Your task to perform on an android device: Add razer blade to the cart on target.com, then select checkout. Image 0: 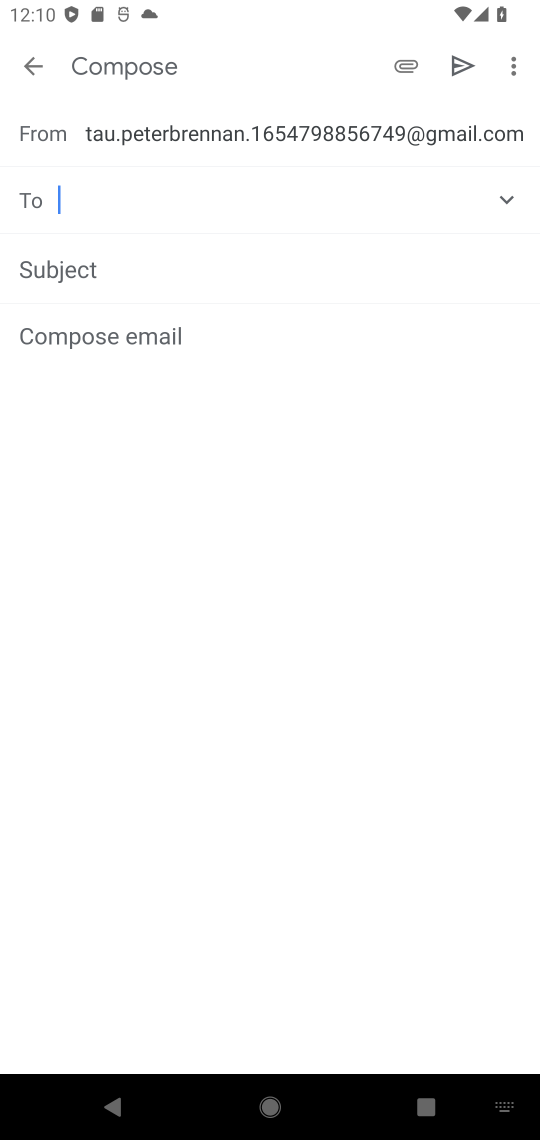
Step 0: press home button
Your task to perform on an android device: Add razer blade to the cart on target.com, then select checkout. Image 1: 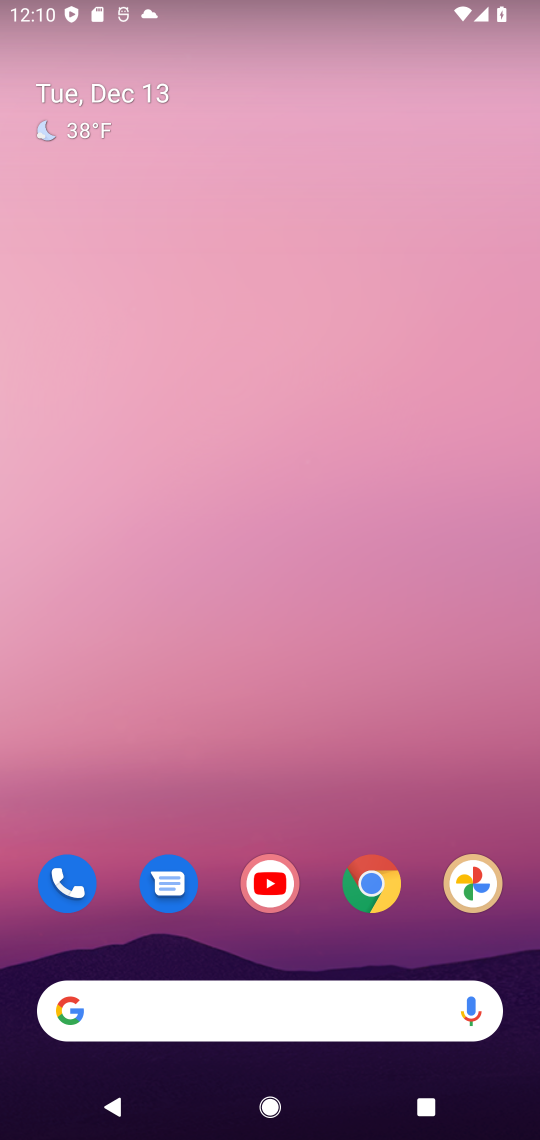
Step 1: click (168, 1019)
Your task to perform on an android device: Add razer blade to the cart on target.com, then select checkout. Image 2: 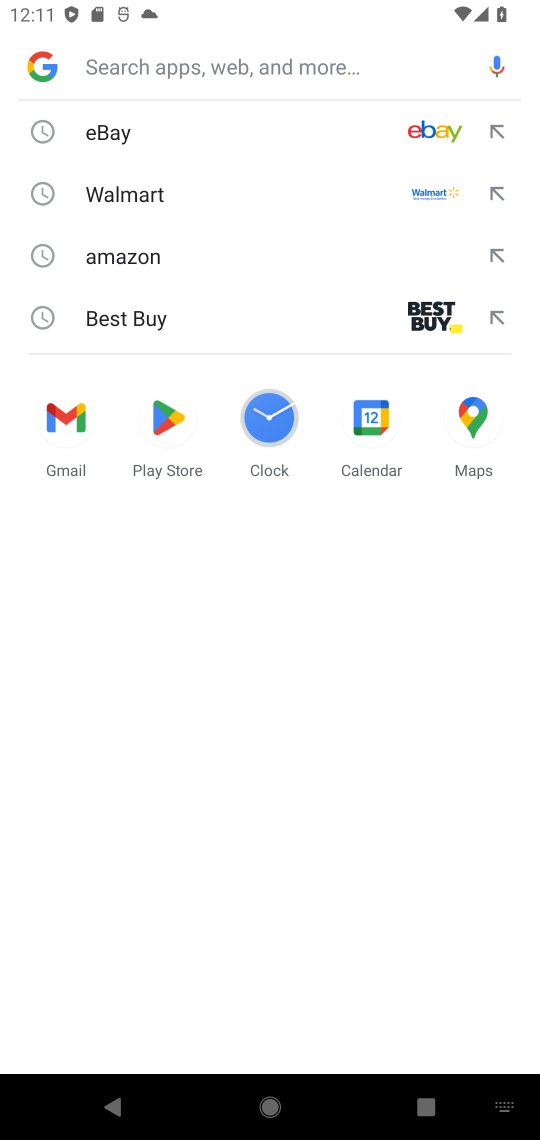
Step 2: type " target.com"
Your task to perform on an android device: Add razer blade to the cart on target.com, then select checkout. Image 3: 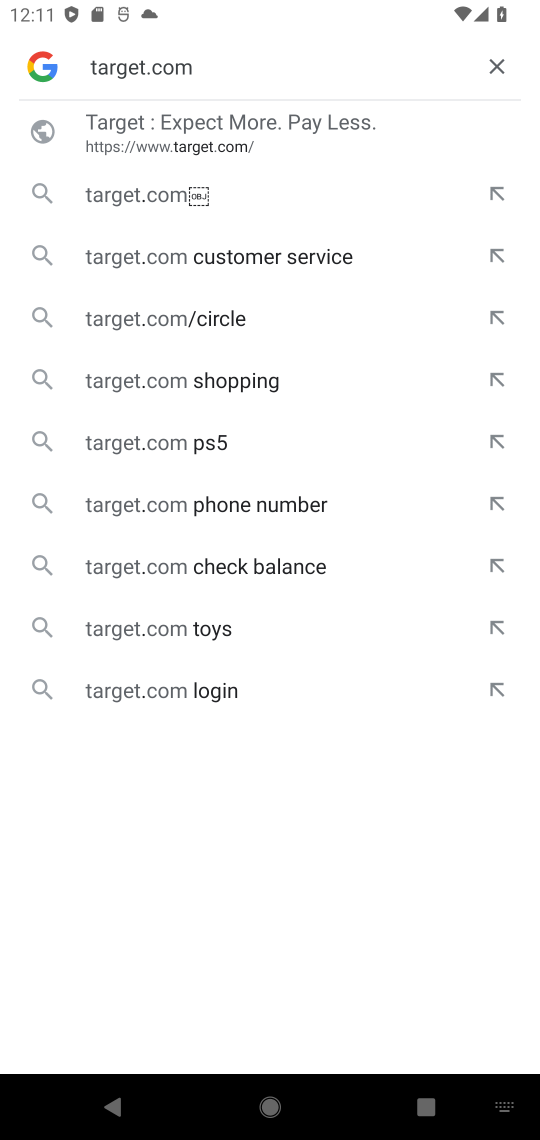
Step 3: click (118, 151)
Your task to perform on an android device: Add razer blade to the cart on target.com, then select checkout. Image 4: 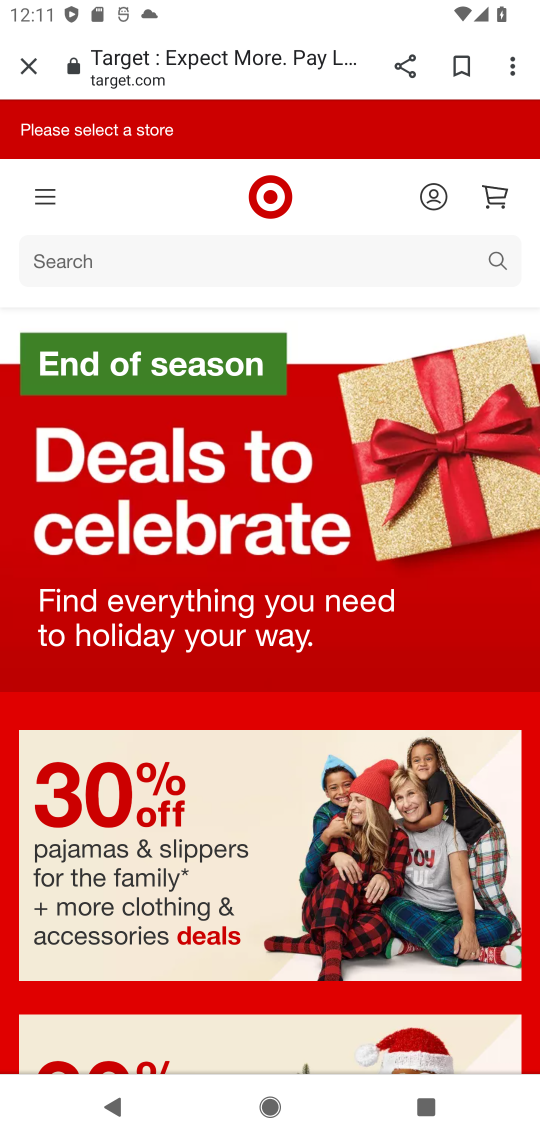
Step 4: click (263, 265)
Your task to perform on an android device: Add razer blade to the cart on target.com, then select checkout. Image 5: 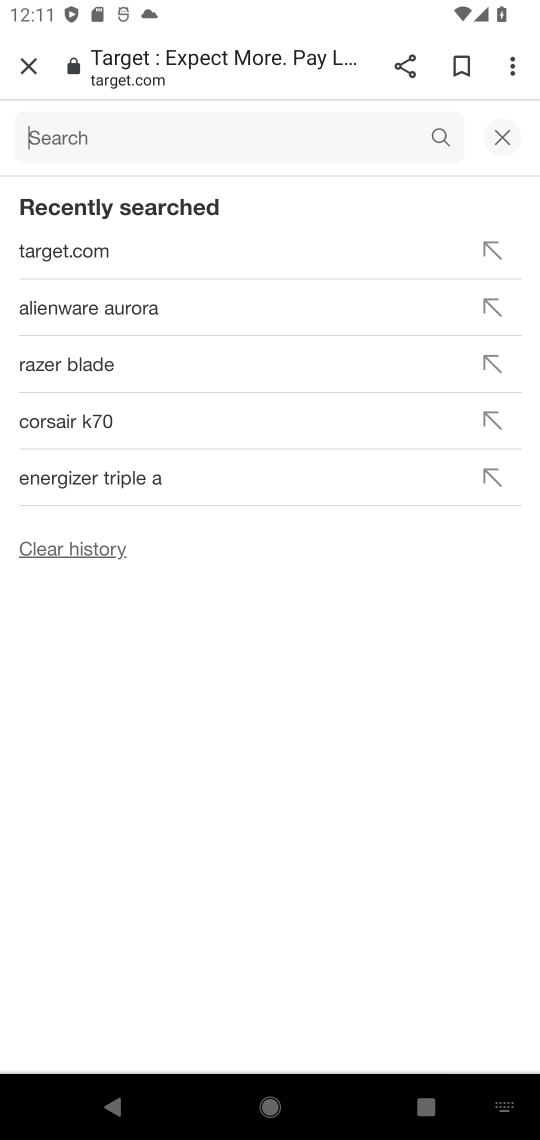
Step 5: type "razer blade"
Your task to perform on an android device: Add razer blade to the cart on target.com, then select checkout. Image 6: 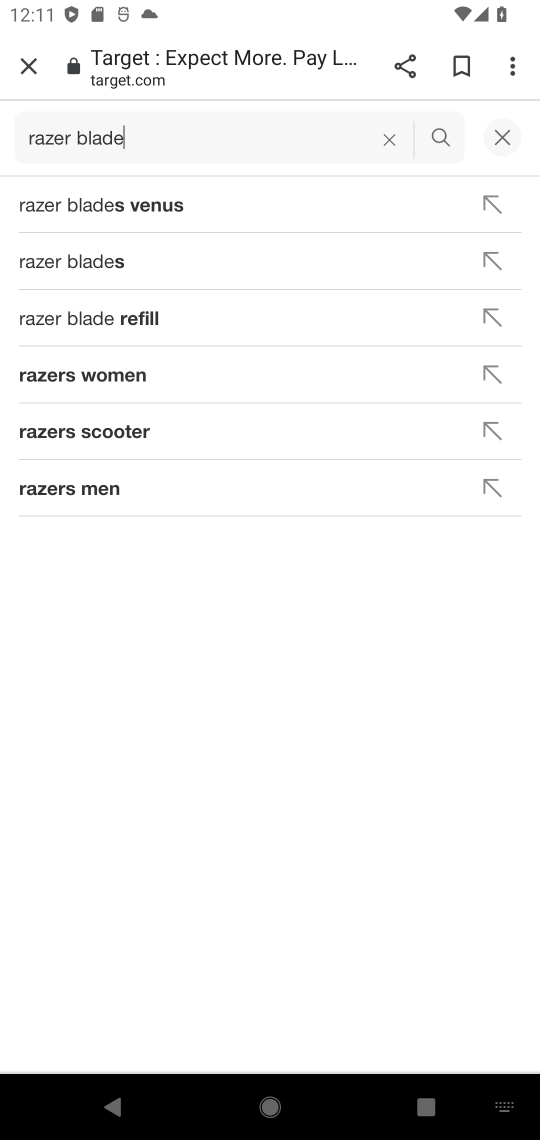
Step 6: click (442, 131)
Your task to perform on an android device: Add razer blade to the cart on target.com, then select checkout. Image 7: 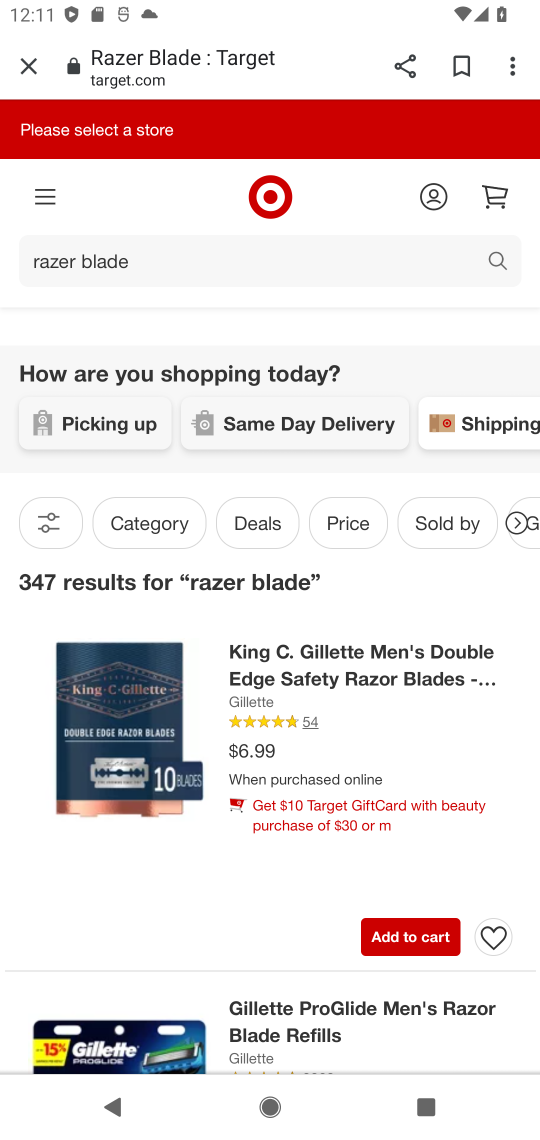
Step 7: click (381, 938)
Your task to perform on an android device: Add razer blade to the cart on target.com, then select checkout. Image 8: 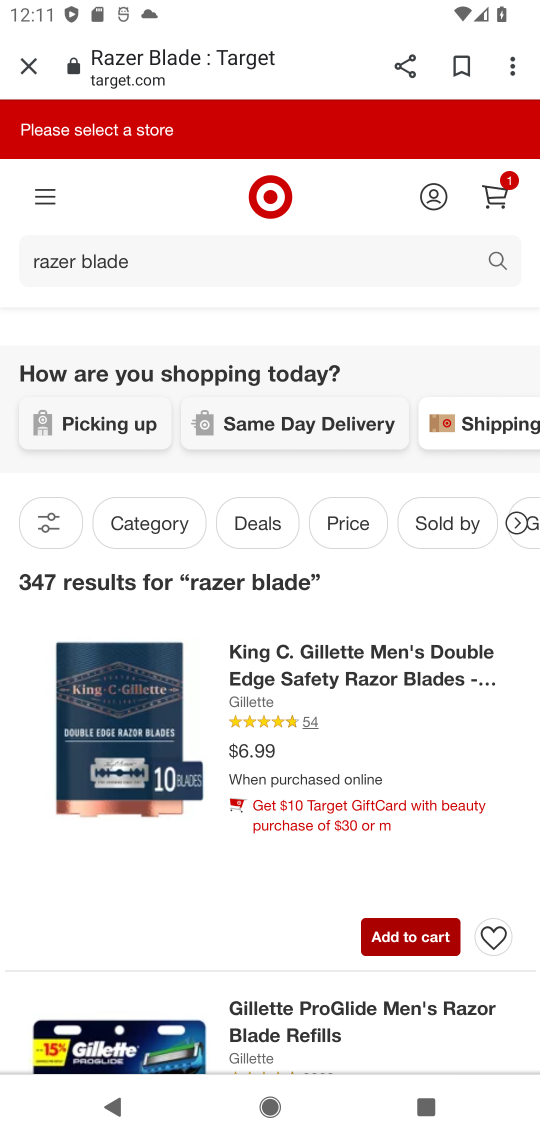
Step 8: click (491, 197)
Your task to perform on an android device: Add razer blade to the cart on target.com, then select checkout. Image 9: 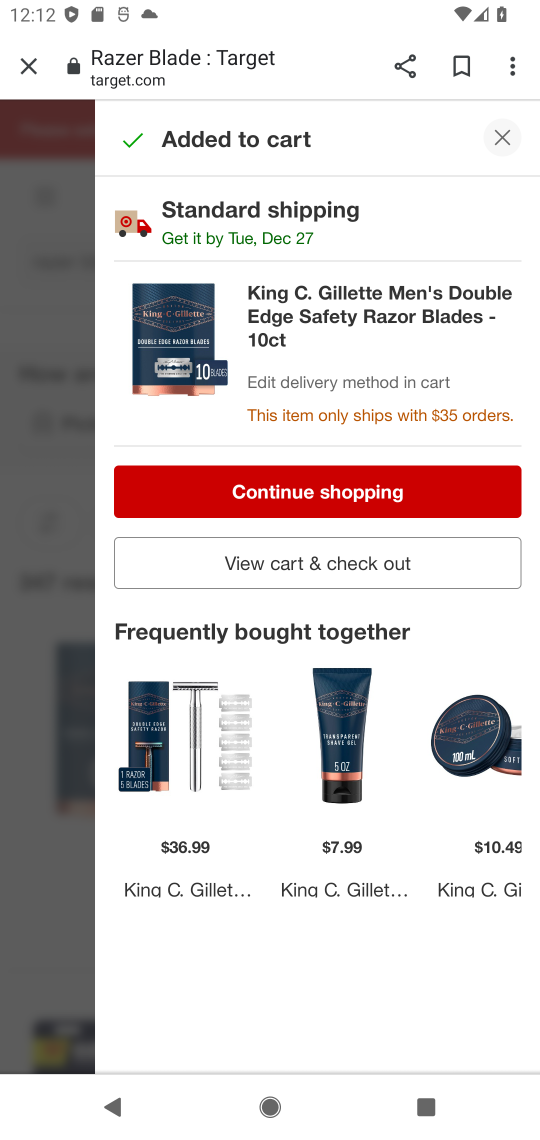
Step 9: click (287, 558)
Your task to perform on an android device: Add razer blade to the cart on target.com, then select checkout. Image 10: 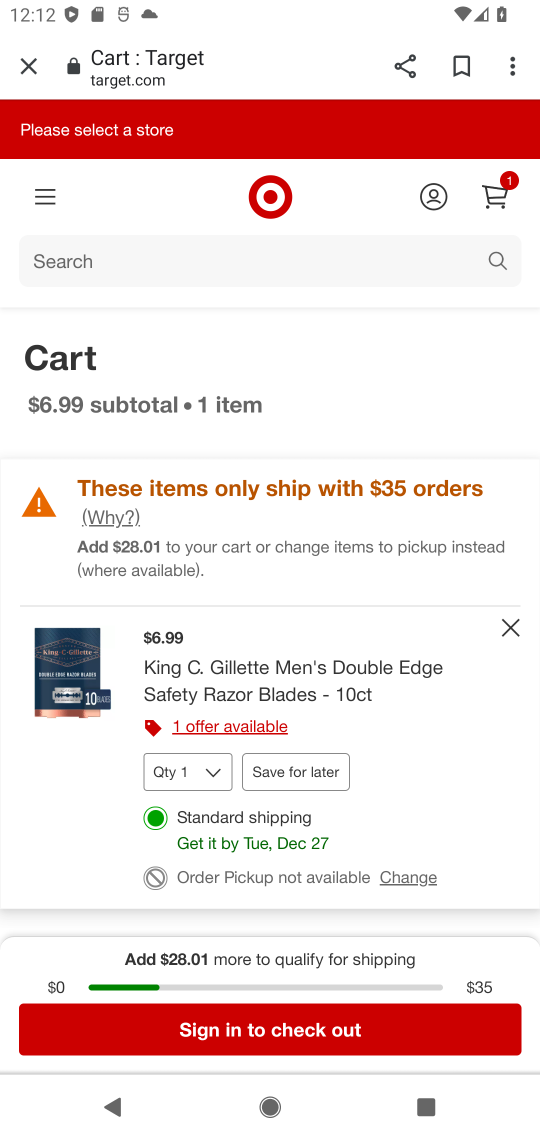
Step 10: click (283, 1036)
Your task to perform on an android device: Add razer blade to the cart on target.com, then select checkout. Image 11: 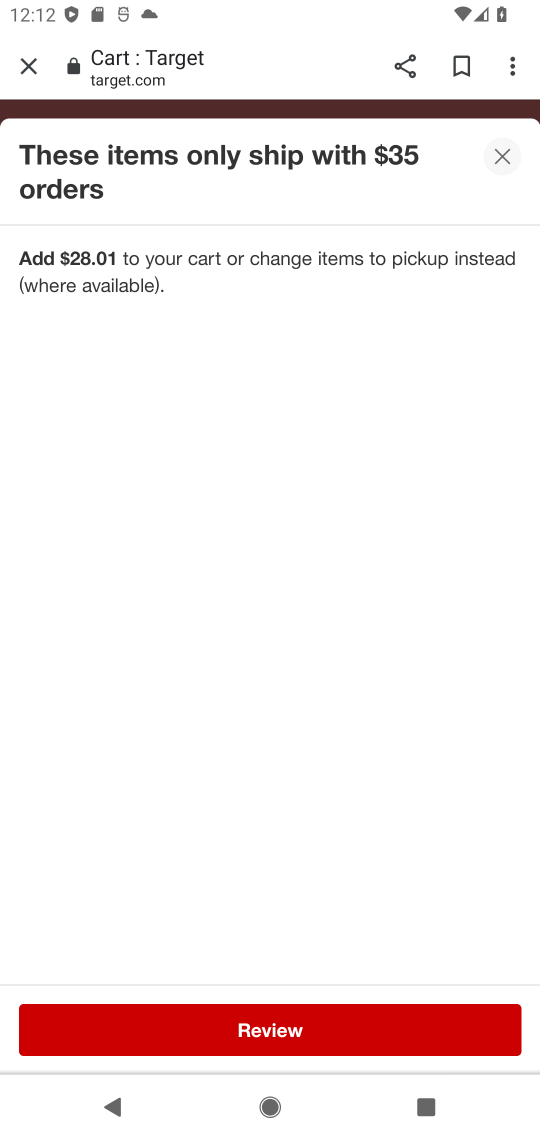
Step 11: task complete